Your task to perform on an android device: delete a single message in the gmail app Image 0: 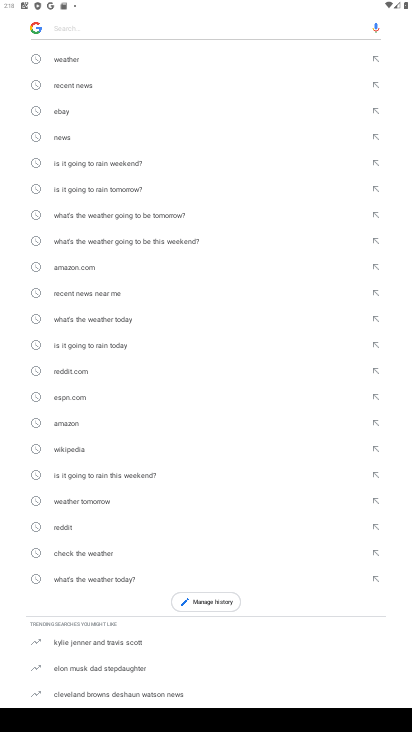
Step 0: press home button
Your task to perform on an android device: delete a single message in the gmail app Image 1: 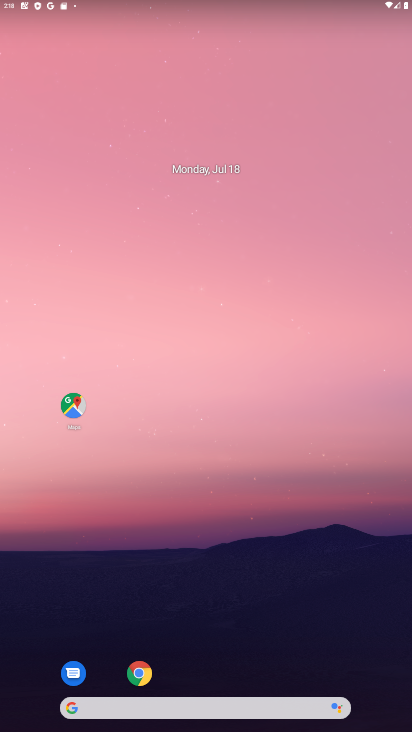
Step 1: drag from (184, 709) to (263, 309)
Your task to perform on an android device: delete a single message in the gmail app Image 2: 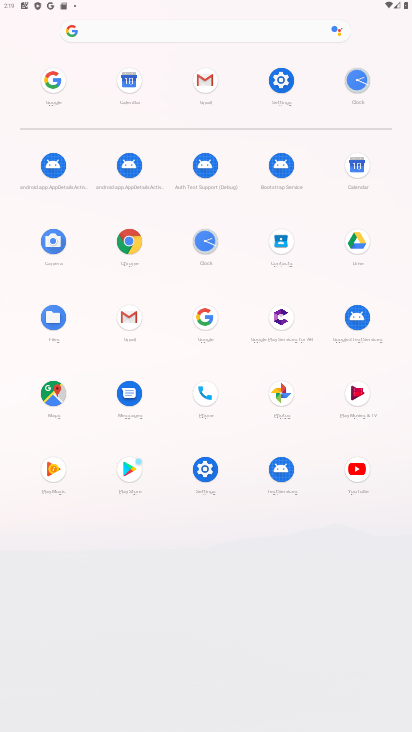
Step 2: click (128, 315)
Your task to perform on an android device: delete a single message in the gmail app Image 3: 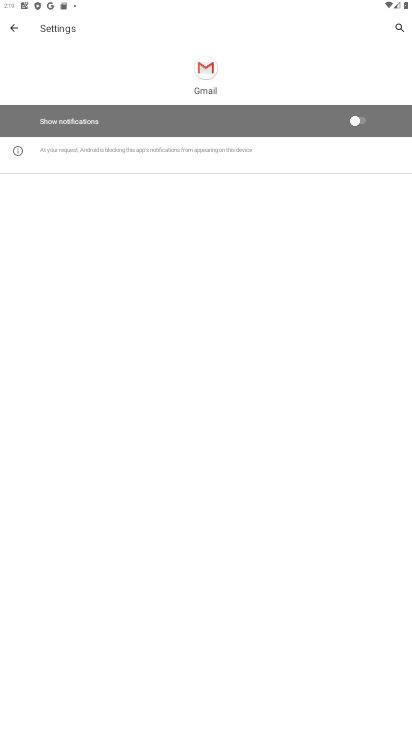
Step 3: press back button
Your task to perform on an android device: delete a single message in the gmail app Image 4: 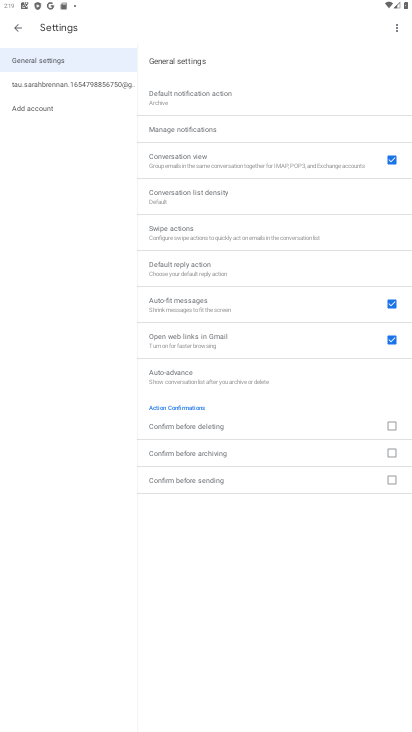
Step 4: press back button
Your task to perform on an android device: delete a single message in the gmail app Image 5: 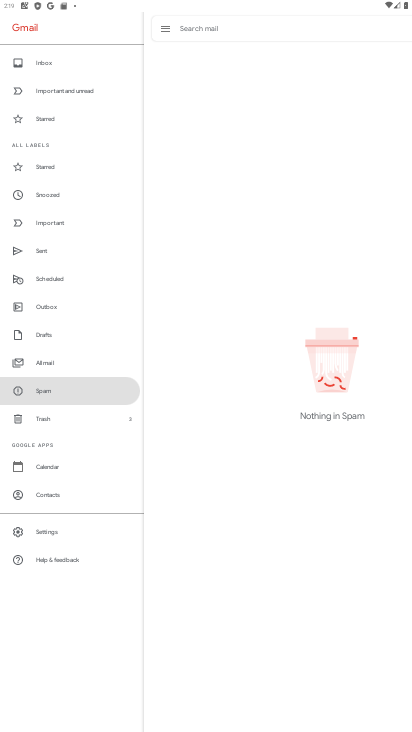
Step 5: click (37, 65)
Your task to perform on an android device: delete a single message in the gmail app Image 6: 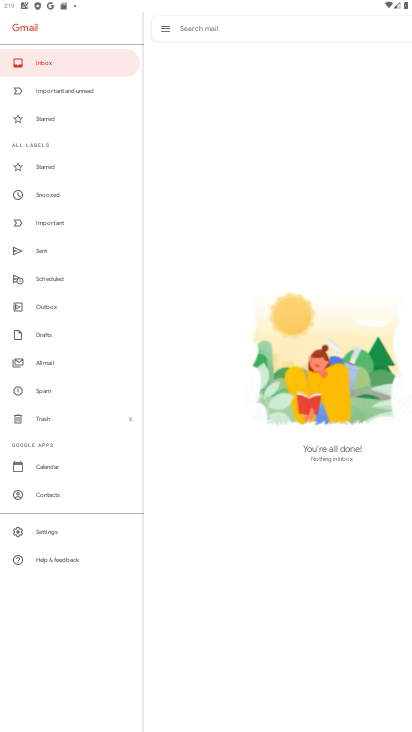
Step 6: click (40, 89)
Your task to perform on an android device: delete a single message in the gmail app Image 7: 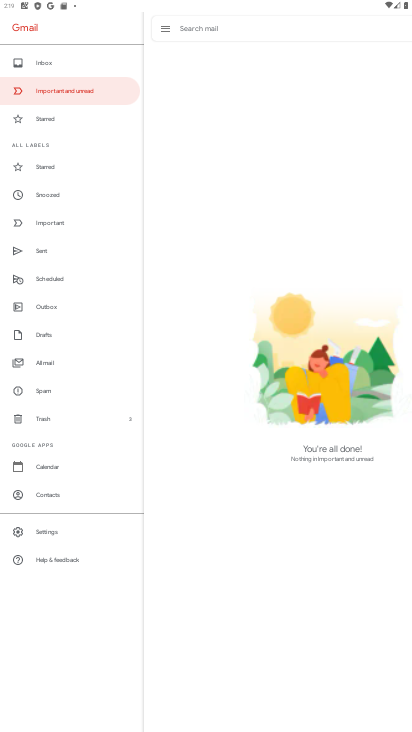
Step 7: click (46, 130)
Your task to perform on an android device: delete a single message in the gmail app Image 8: 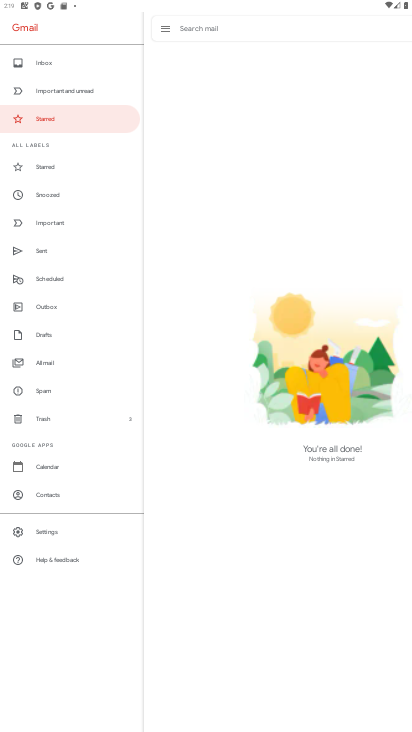
Step 8: click (40, 169)
Your task to perform on an android device: delete a single message in the gmail app Image 9: 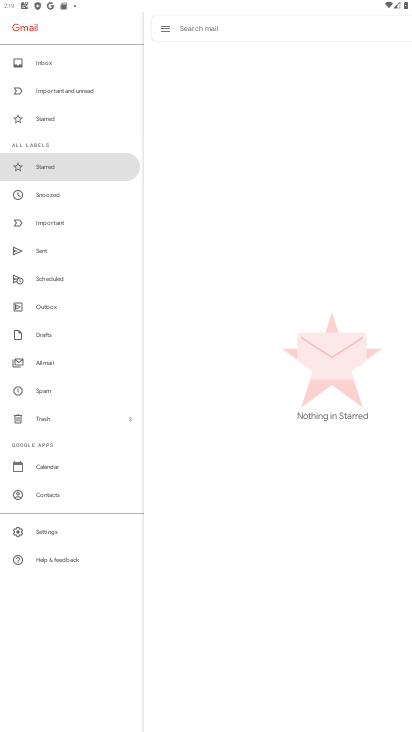
Step 9: click (56, 194)
Your task to perform on an android device: delete a single message in the gmail app Image 10: 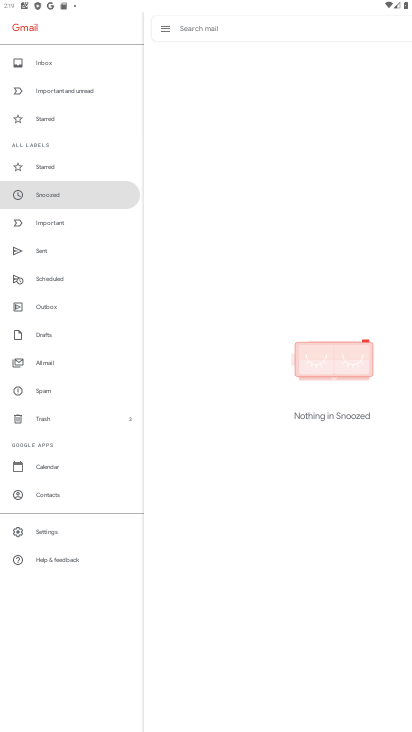
Step 10: click (44, 225)
Your task to perform on an android device: delete a single message in the gmail app Image 11: 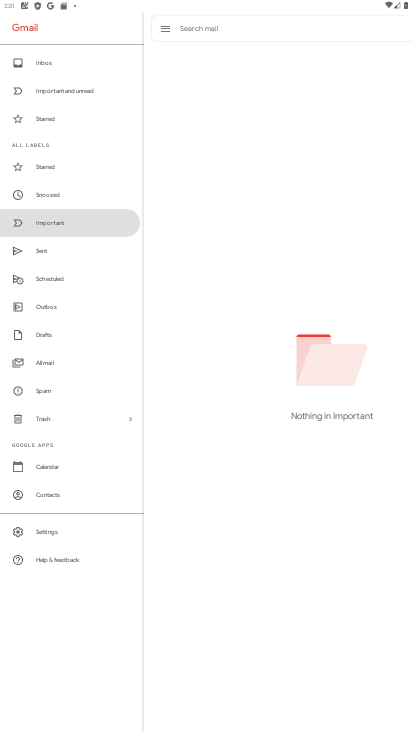
Step 11: click (42, 249)
Your task to perform on an android device: delete a single message in the gmail app Image 12: 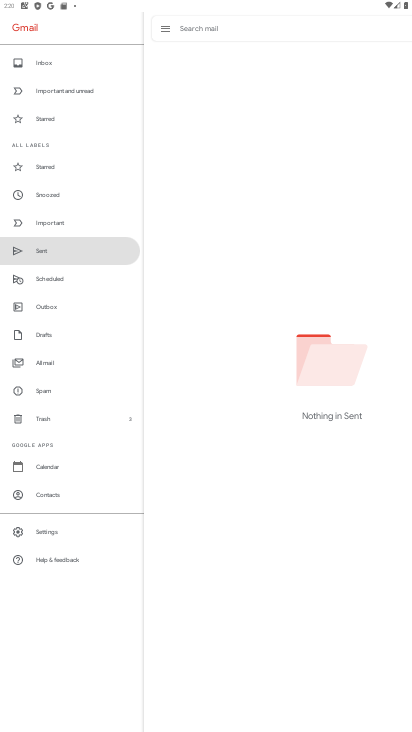
Step 12: click (49, 279)
Your task to perform on an android device: delete a single message in the gmail app Image 13: 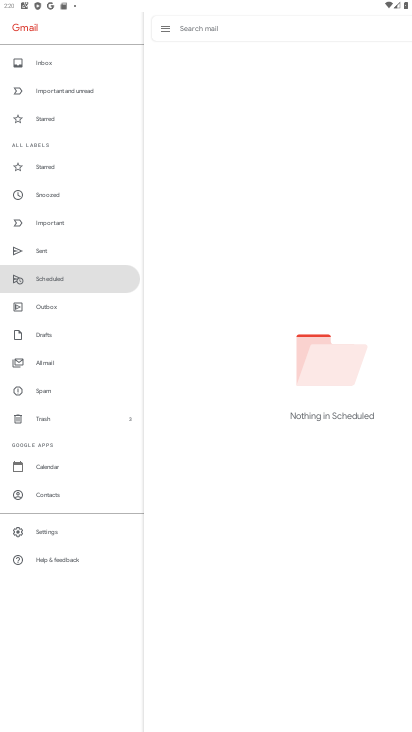
Step 13: click (37, 309)
Your task to perform on an android device: delete a single message in the gmail app Image 14: 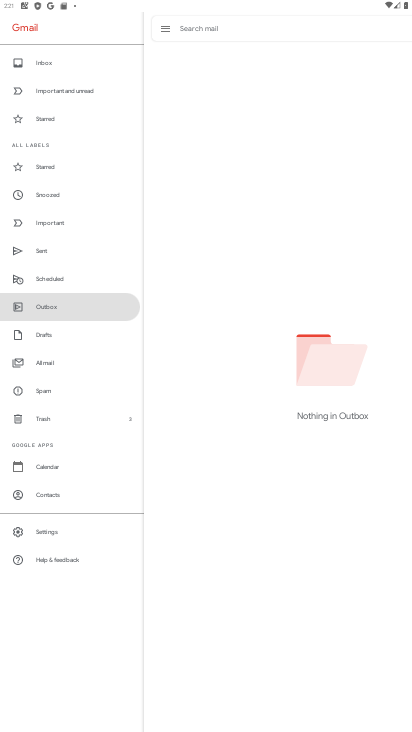
Step 14: click (52, 336)
Your task to perform on an android device: delete a single message in the gmail app Image 15: 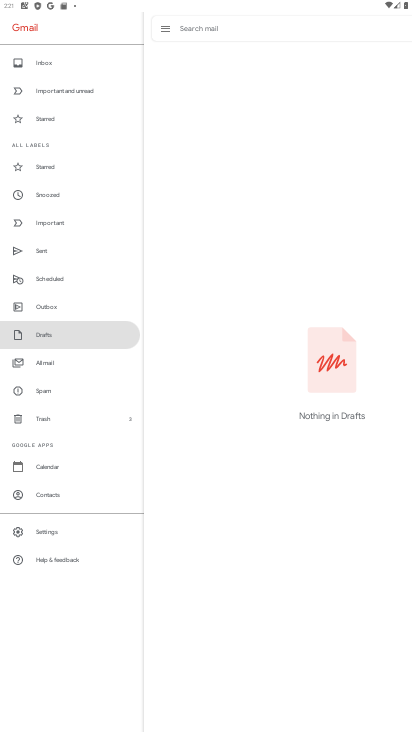
Step 15: click (44, 364)
Your task to perform on an android device: delete a single message in the gmail app Image 16: 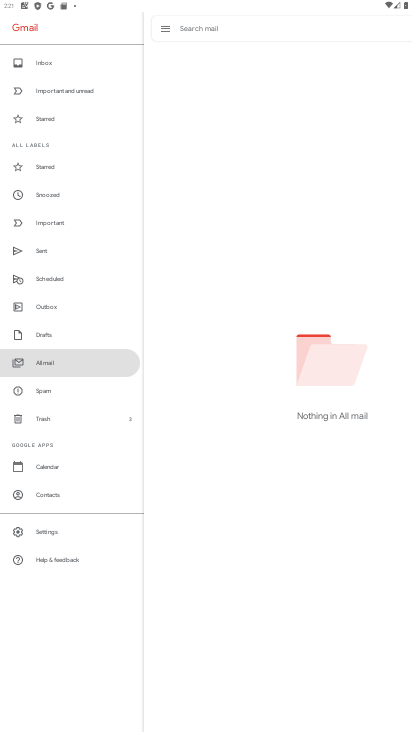
Step 16: click (53, 389)
Your task to perform on an android device: delete a single message in the gmail app Image 17: 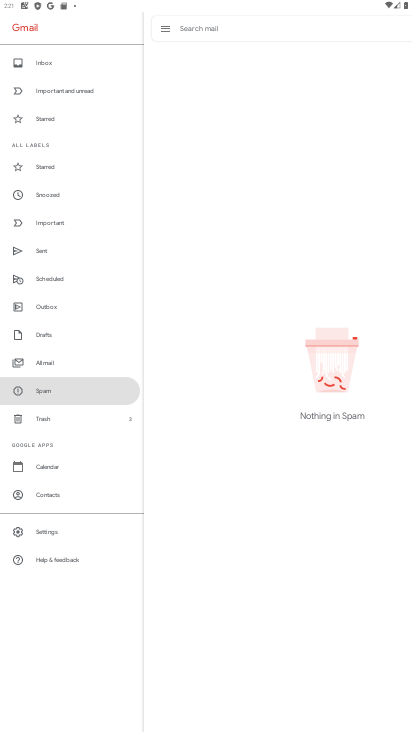
Step 17: task complete